Your task to perform on an android device: Find a good burger place on Maps Image 0: 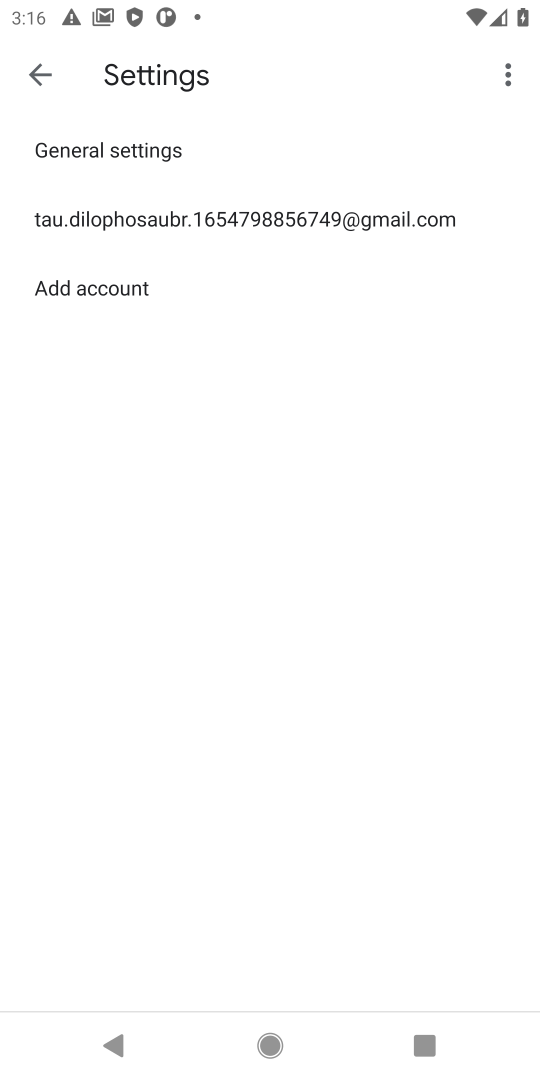
Step 0: press home button
Your task to perform on an android device: Find a good burger place on Maps Image 1: 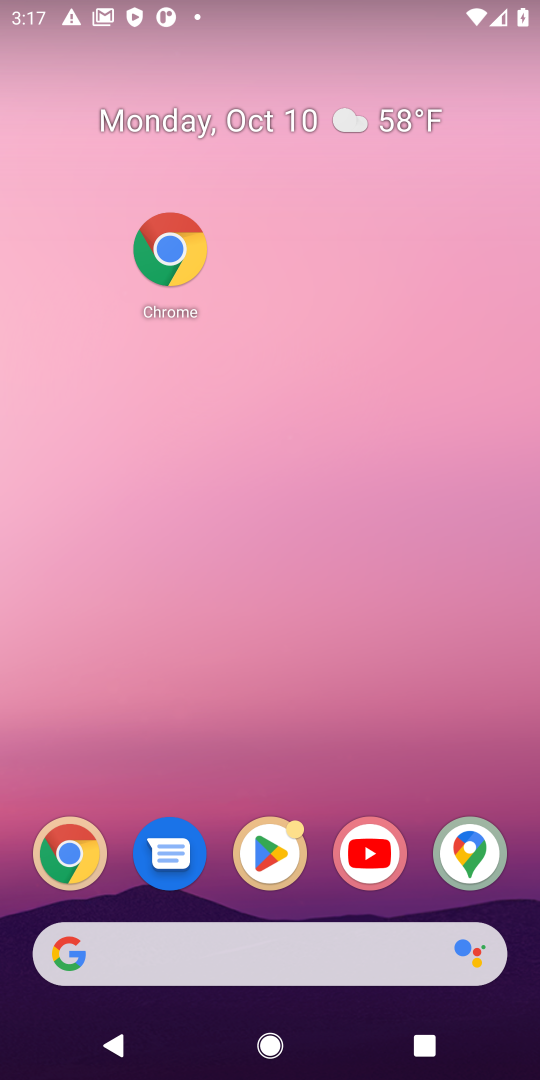
Step 1: click (470, 844)
Your task to perform on an android device: Find a good burger place on Maps Image 2: 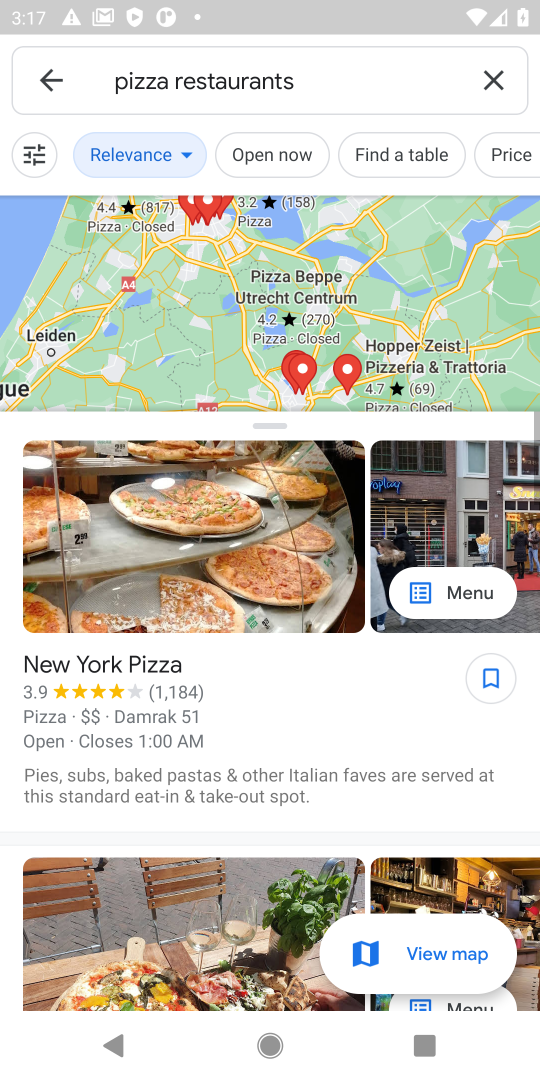
Step 2: click (163, 74)
Your task to perform on an android device: Find a good burger place on Maps Image 3: 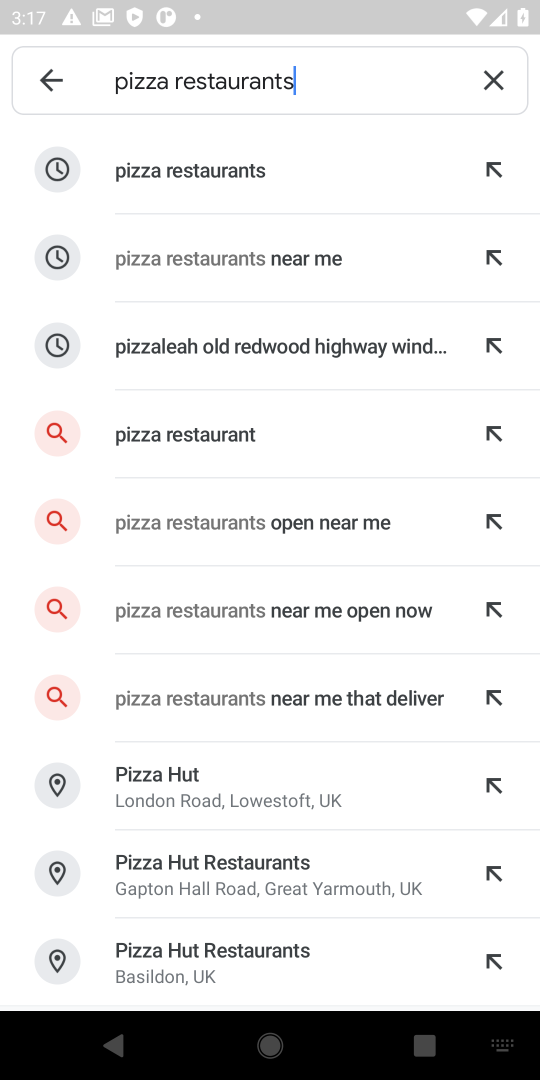
Step 3: click (496, 70)
Your task to perform on an android device: Find a good burger place on Maps Image 4: 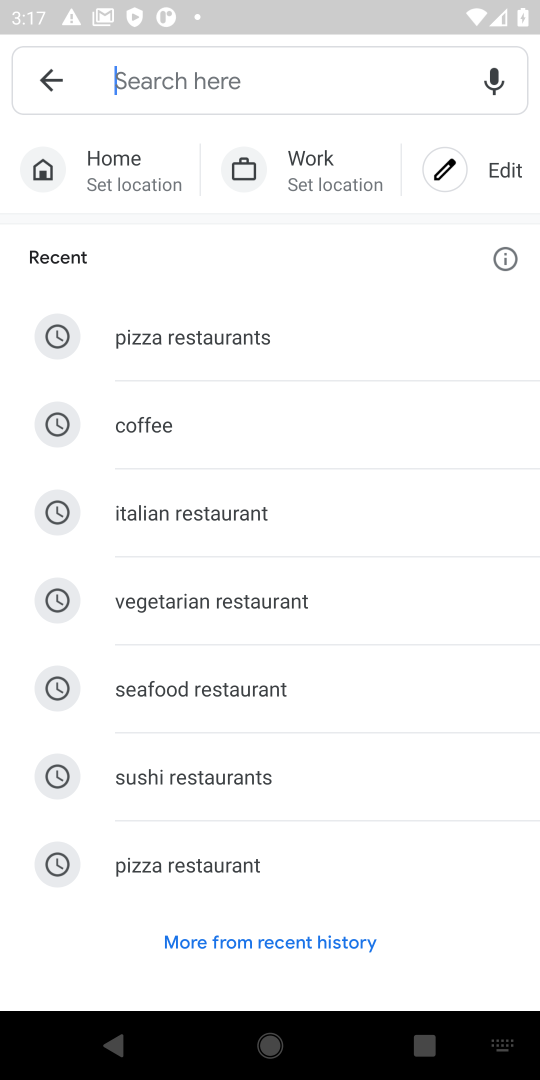
Step 4: type "good burger place"
Your task to perform on an android device: Find a good burger place on Maps Image 5: 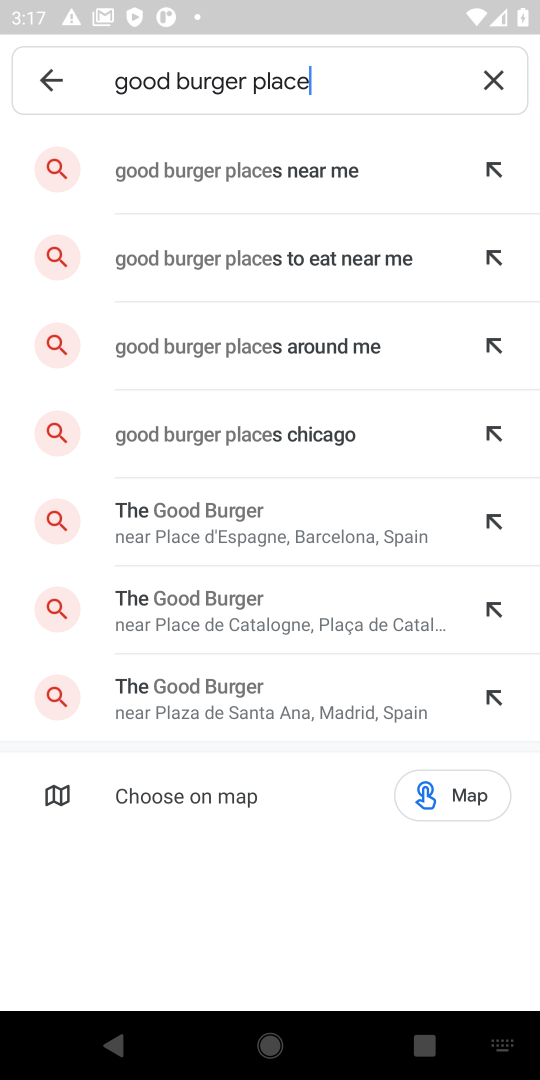
Step 5: click (265, 181)
Your task to perform on an android device: Find a good burger place on Maps Image 6: 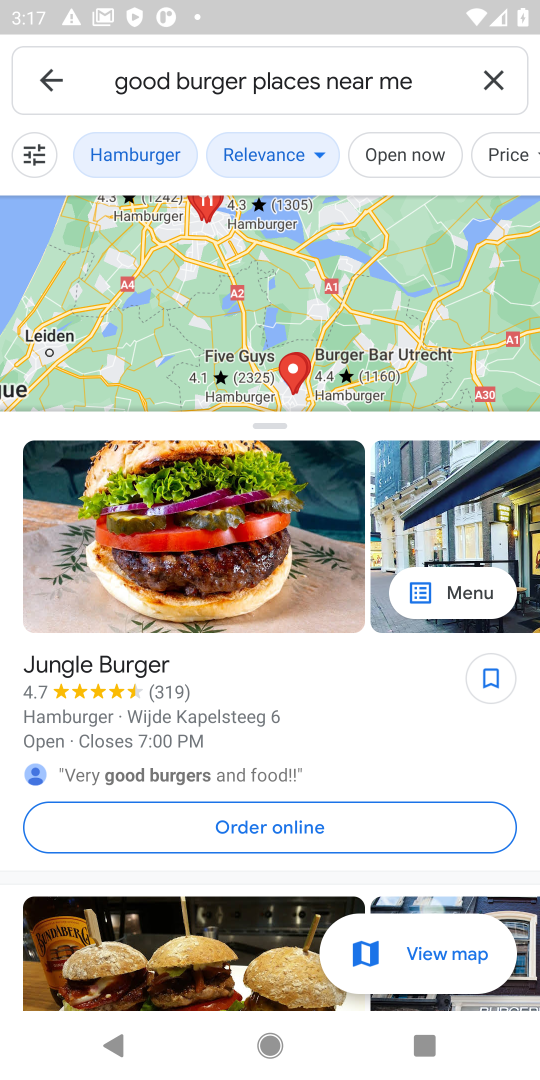
Step 6: task complete